Your task to perform on an android device: Open battery settings Image 0: 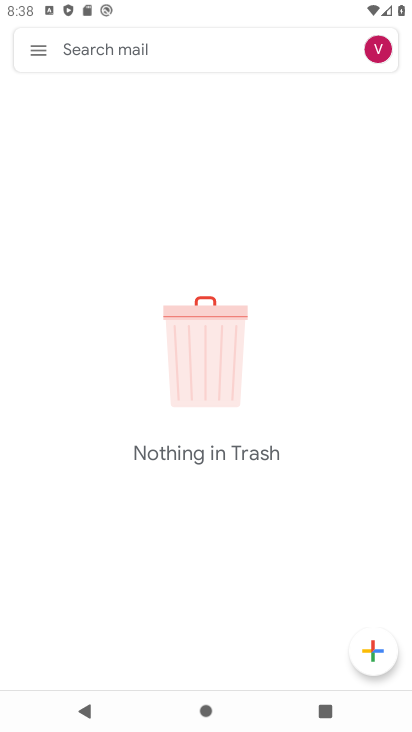
Step 0: press home button
Your task to perform on an android device: Open battery settings Image 1: 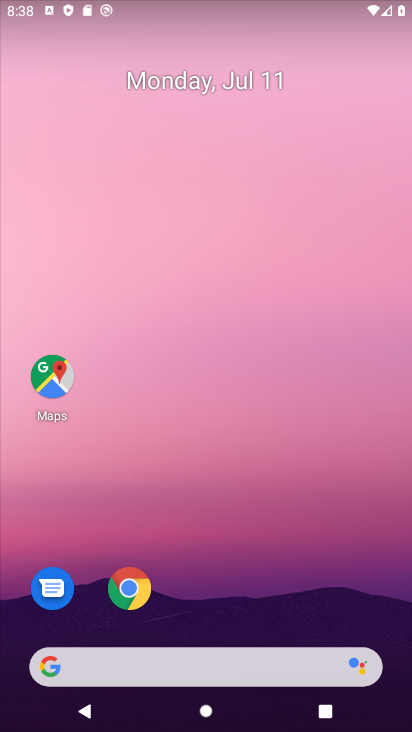
Step 1: drag from (390, 647) to (334, 145)
Your task to perform on an android device: Open battery settings Image 2: 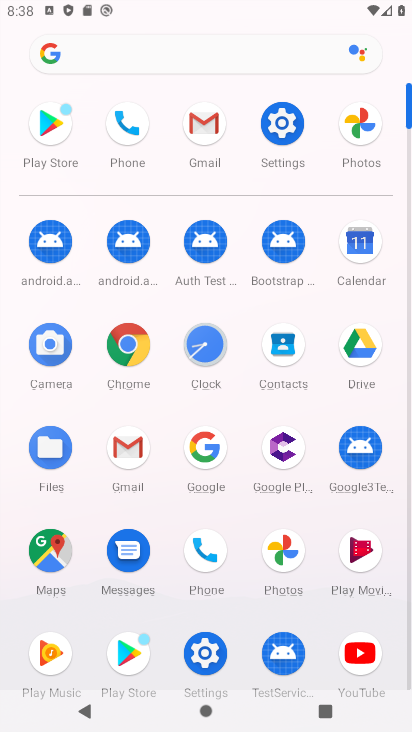
Step 2: click (212, 667)
Your task to perform on an android device: Open battery settings Image 3: 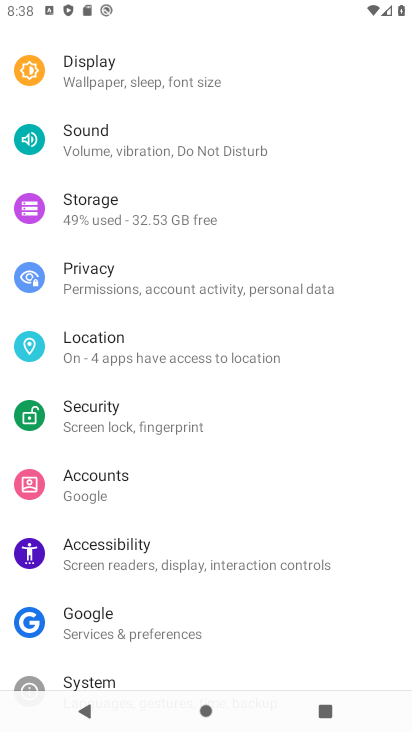
Step 3: drag from (192, 270) to (217, 645)
Your task to perform on an android device: Open battery settings Image 4: 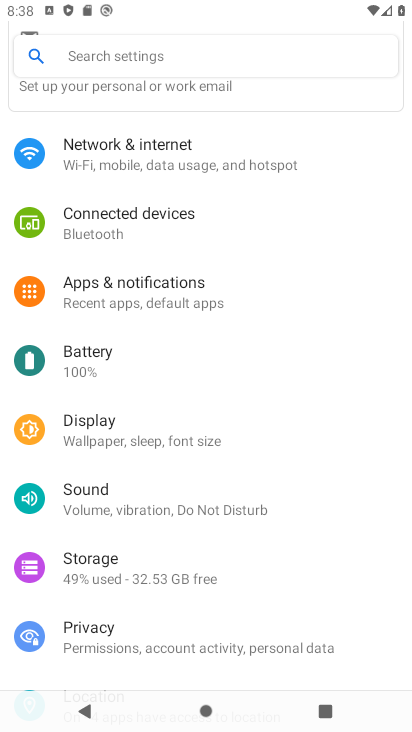
Step 4: click (176, 359)
Your task to perform on an android device: Open battery settings Image 5: 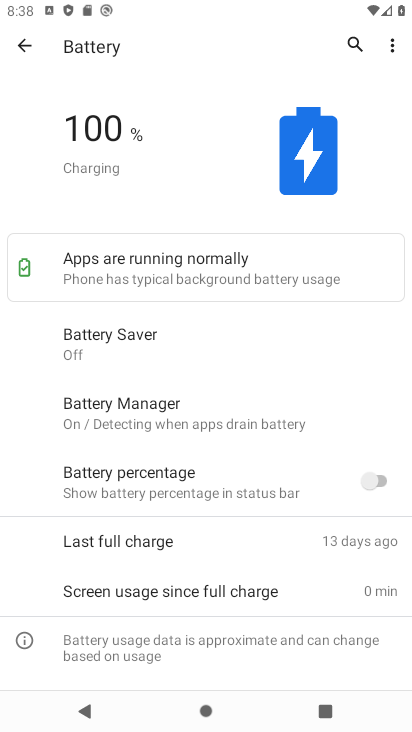
Step 5: task complete